Your task to perform on an android device: Go to internet settings Image 0: 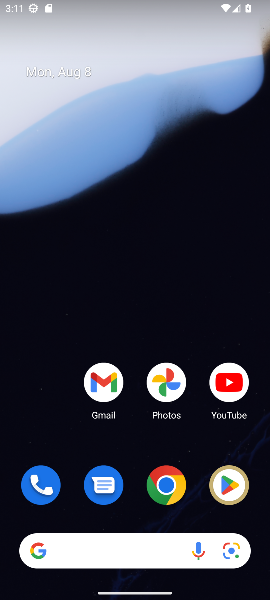
Step 0: drag from (192, 527) to (155, 106)
Your task to perform on an android device: Go to internet settings Image 1: 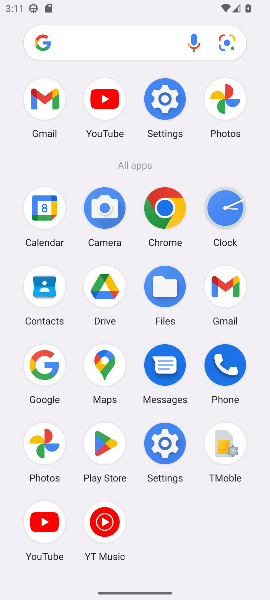
Step 1: click (166, 122)
Your task to perform on an android device: Go to internet settings Image 2: 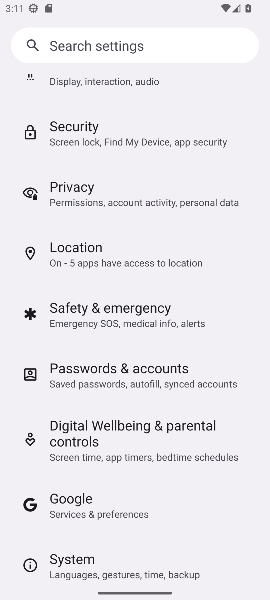
Step 2: click (73, 189)
Your task to perform on an android device: Go to internet settings Image 3: 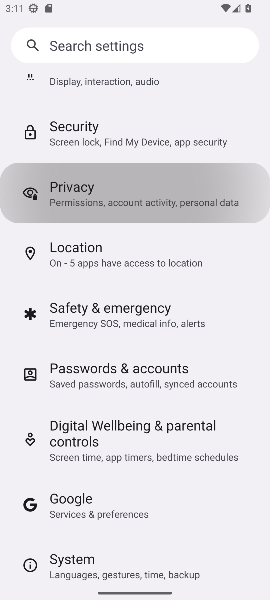
Step 3: click (73, 189)
Your task to perform on an android device: Go to internet settings Image 4: 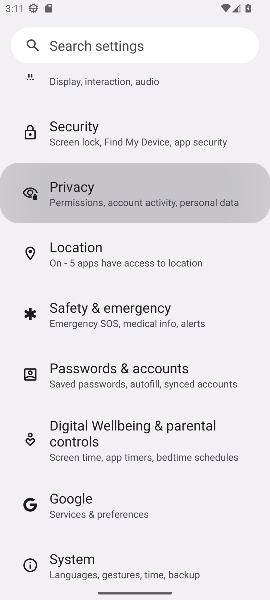
Step 4: click (73, 189)
Your task to perform on an android device: Go to internet settings Image 5: 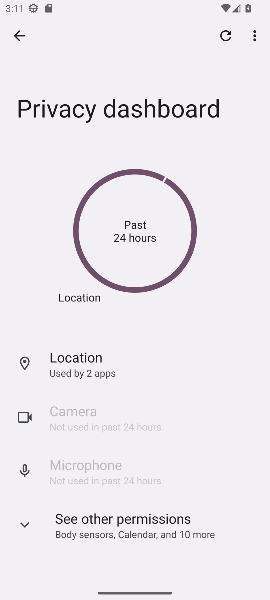
Step 5: click (14, 39)
Your task to perform on an android device: Go to internet settings Image 6: 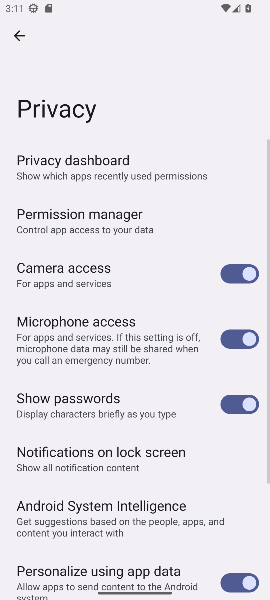
Step 6: click (20, 33)
Your task to perform on an android device: Go to internet settings Image 7: 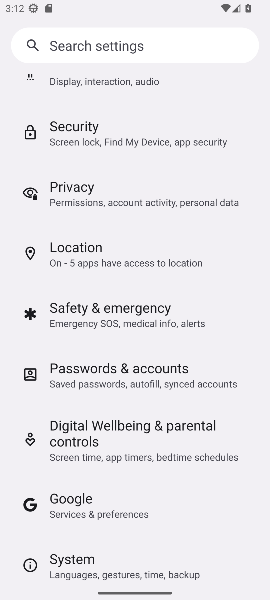
Step 7: drag from (86, 122) to (49, 418)
Your task to perform on an android device: Go to internet settings Image 8: 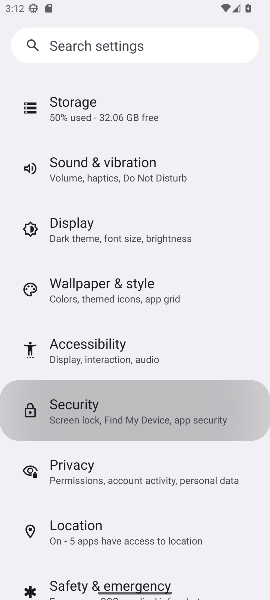
Step 8: click (14, 107)
Your task to perform on an android device: Go to internet settings Image 9: 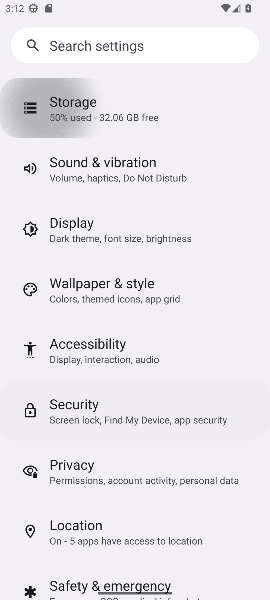
Step 9: drag from (90, 185) to (158, 422)
Your task to perform on an android device: Go to internet settings Image 10: 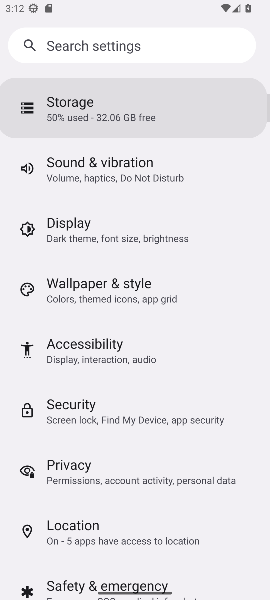
Step 10: drag from (95, 104) to (117, 384)
Your task to perform on an android device: Go to internet settings Image 11: 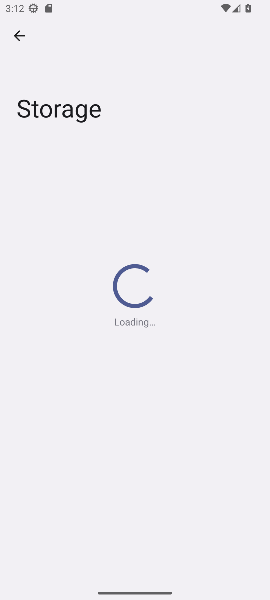
Step 11: drag from (117, 75) to (148, 423)
Your task to perform on an android device: Go to internet settings Image 12: 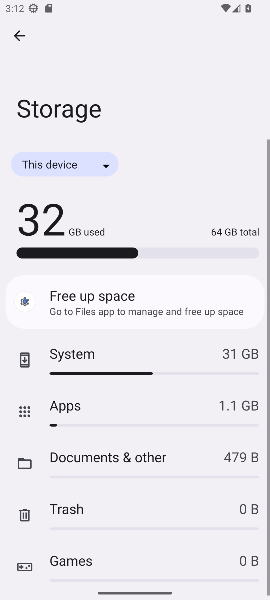
Step 12: click (16, 37)
Your task to perform on an android device: Go to internet settings Image 13: 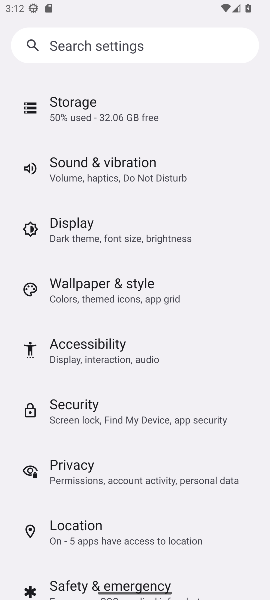
Step 13: drag from (99, 121) to (146, 468)
Your task to perform on an android device: Go to internet settings Image 14: 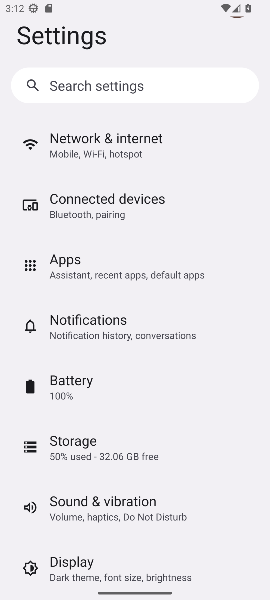
Step 14: drag from (131, 131) to (160, 424)
Your task to perform on an android device: Go to internet settings Image 15: 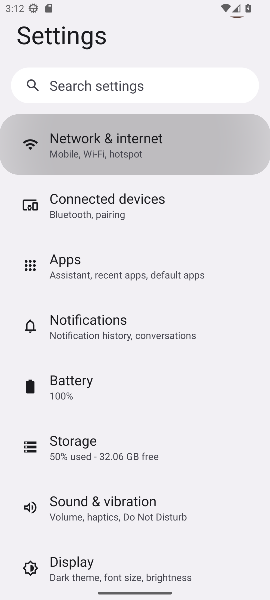
Step 15: drag from (90, 130) to (132, 580)
Your task to perform on an android device: Go to internet settings Image 16: 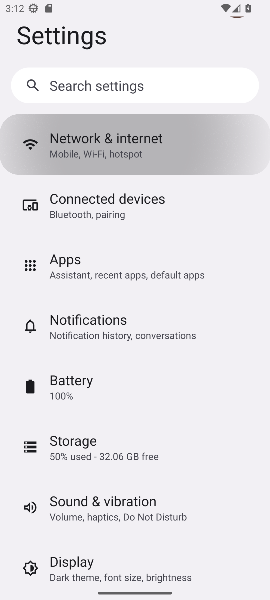
Step 16: drag from (77, 181) to (110, 533)
Your task to perform on an android device: Go to internet settings Image 17: 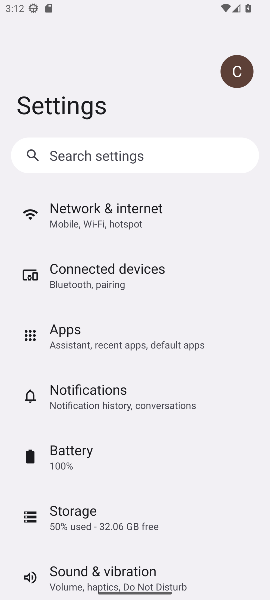
Step 17: click (83, 152)
Your task to perform on an android device: Go to internet settings Image 18: 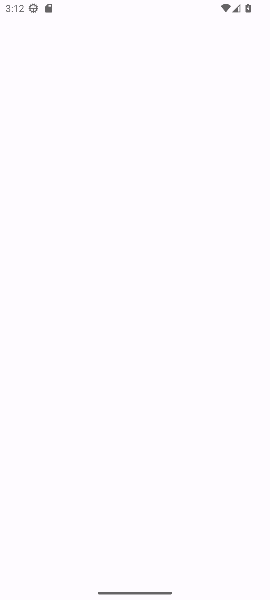
Step 18: click (92, 211)
Your task to perform on an android device: Go to internet settings Image 19: 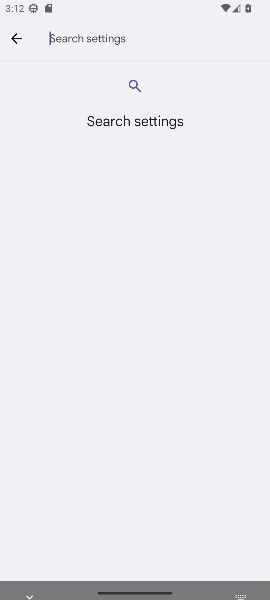
Step 19: click (93, 211)
Your task to perform on an android device: Go to internet settings Image 20: 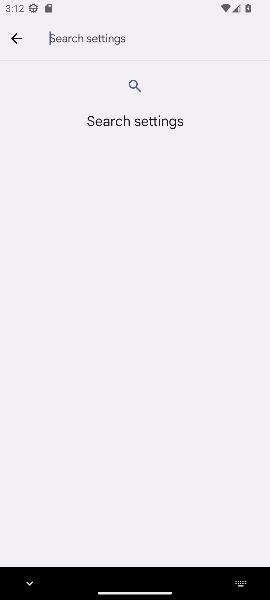
Step 20: click (7, 38)
Your task to perform on an android device: Go to internet settings Image 21: 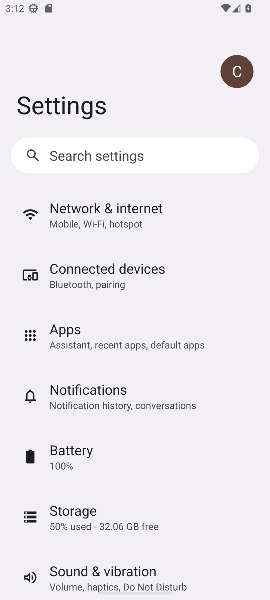
Step 21: task complete